Your task to perform on an android device: turn pop-ups on in chrome Image 0: 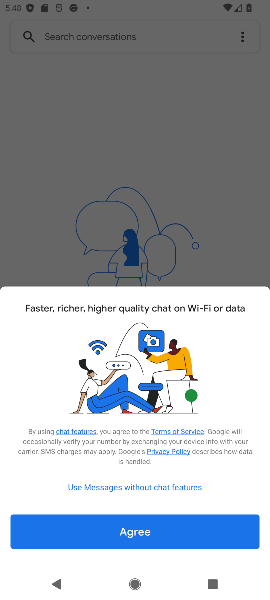
Step 0: press home button
Your task to perform on an android device: turn pop-ups on in chrome Image 1: 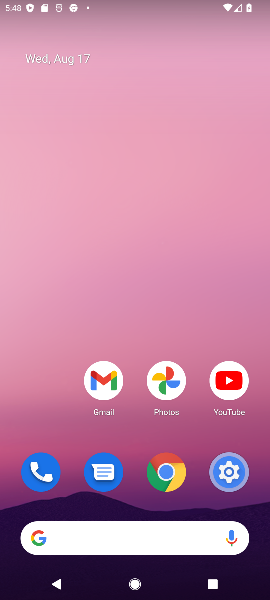
Step 1: click (162, 460)
Your task to perform on an android device: turn pop-ups on in chrome Image 2: 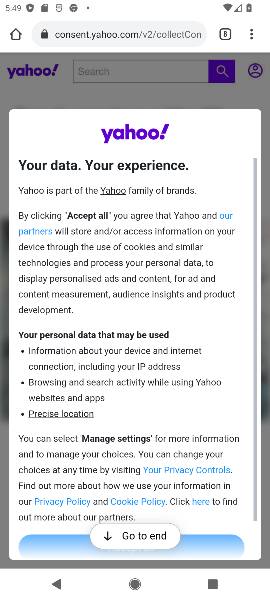
Step 2: click (247, 25)
Your task to perform on an android device: turn pop-ups on in chrome Image 3: 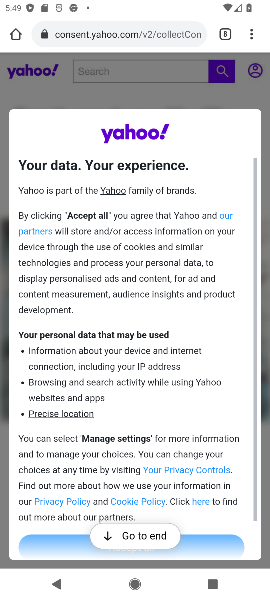
Step 3: click (253, 33)
Your task to perform on an android device: turn pop-ups on in chrome Image 4: 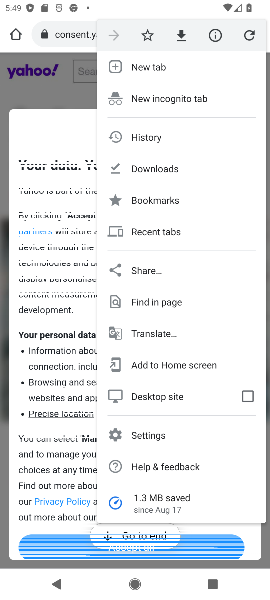
Step 4: click (159, 429)
Your task to perform on an android device: turn pop-ups on in chrome Image 5: 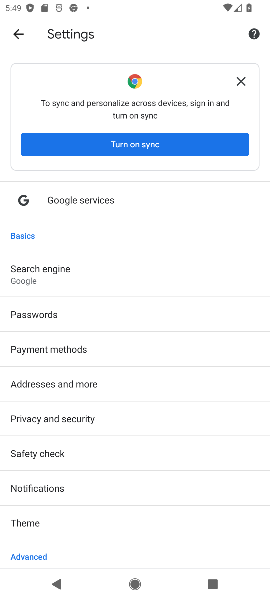
Step 5: drag from (99, 502) to (102, 267)
Your task to perform on an android device: turn pop-ups on in chrome Image 6: 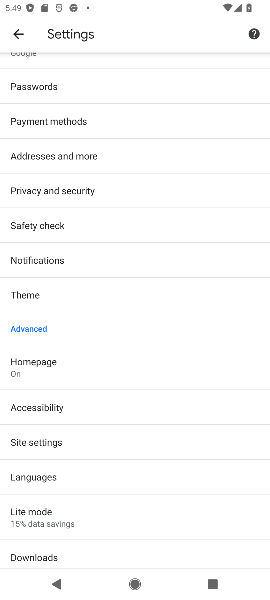
Step 6: click (81, 449)
Your task to perform on an android device: turn pop-ups on in chrome Image 7: 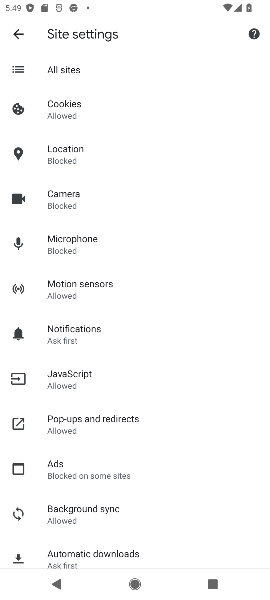
Step 7: click (103, 410)
Your task to perform on an android device: turn pop-ups on in chrome Image 8: 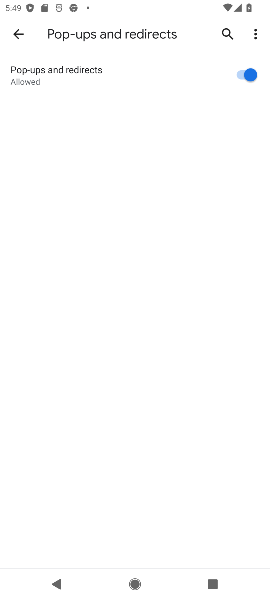
Step 8: task complete